Your task to perform on an android device: Open display settings Image 0: 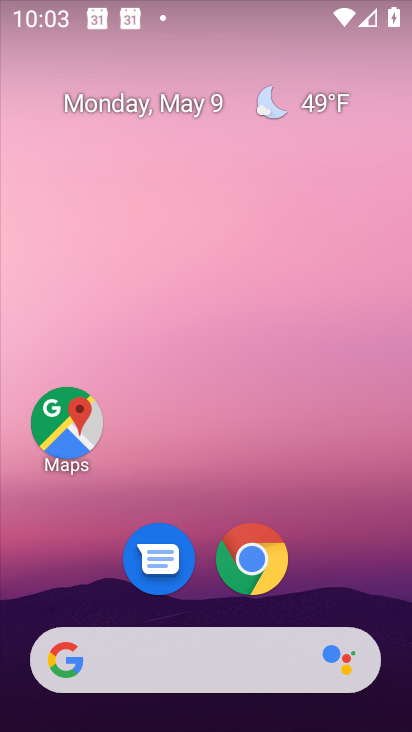
Step 0: drag from (194, 725) to (194, 144)
Your task to perform on an android device: Open display settings Image 1: 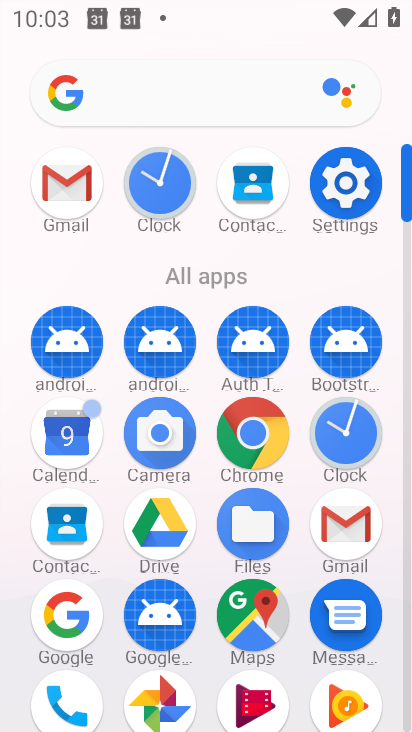
Step 1: click (339, 184)
Your task to perform on an android device: Open display settings Image 2: 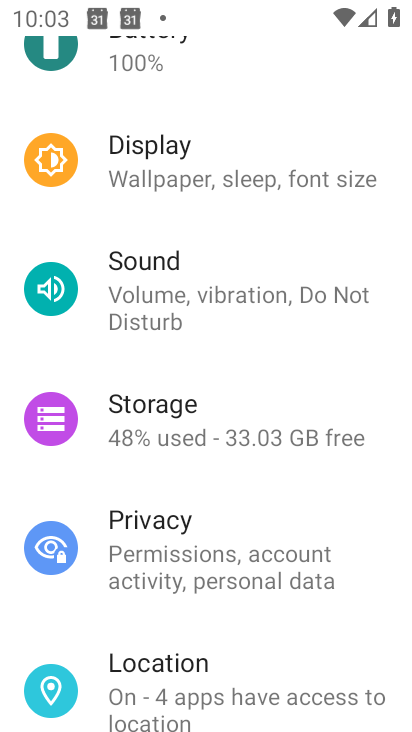
Step 2: click (157, 166)
Your task to perform on an android device: Open display settings Image 3: 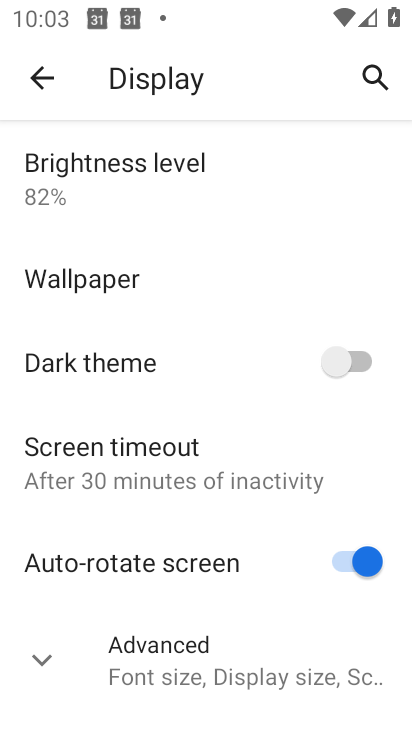
Step 3: task complete